Your task to perform on an android device: add a contact in the contacts app Image 0: 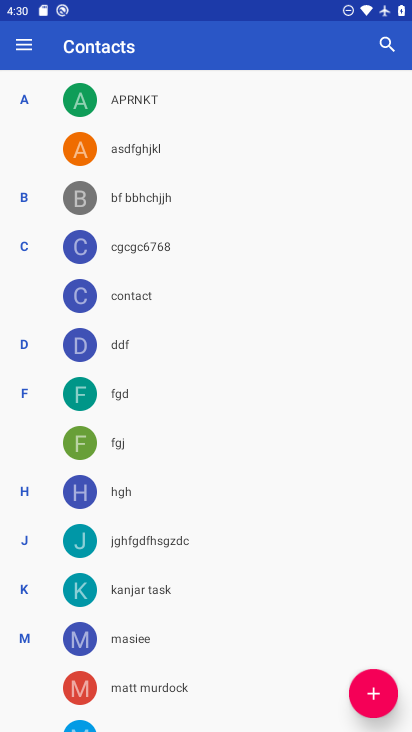
Step 0: press home button
Your task to perform on an android device: add a contact in the contacts app Image 1: 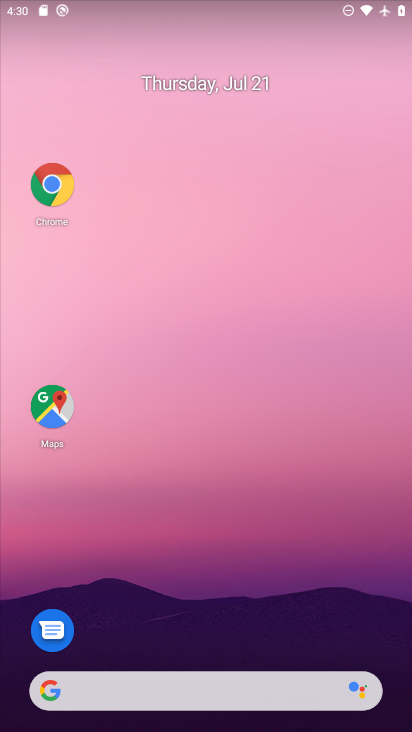
Step 1: drag from (216, 681) to (252, 4)
Your task to perform on an android device: add a contact in the contacts app Image 2: 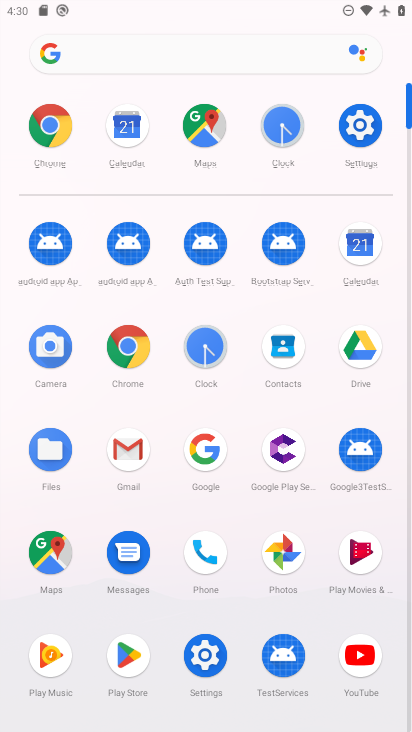
Step 2: click (207, 550)
Your task to perform on an android device: add a contact in the contacts app Image 3: 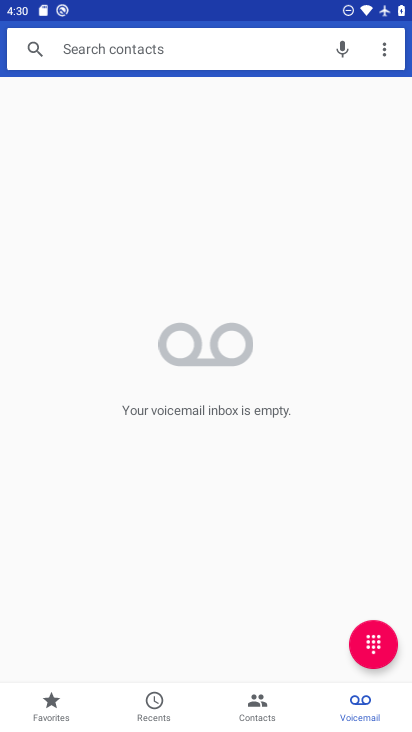
Step 3: click (266, 696)
Your task to perform on an android device: add a contact in the contacts app Image 4: 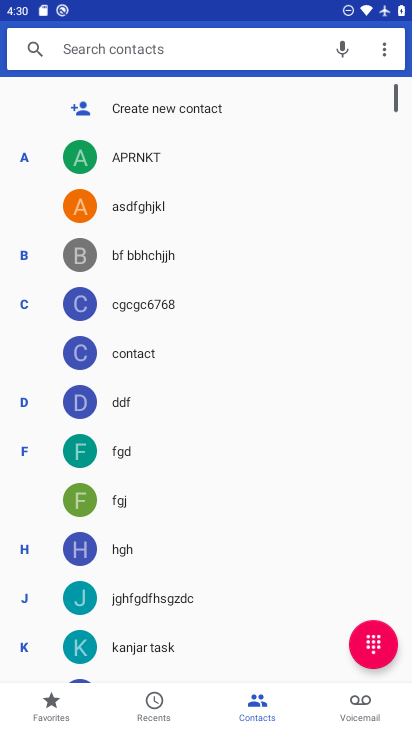
Step 4: click (129, 107)
Your task to perform on an android device: add a contact in the contacts app Image 5: 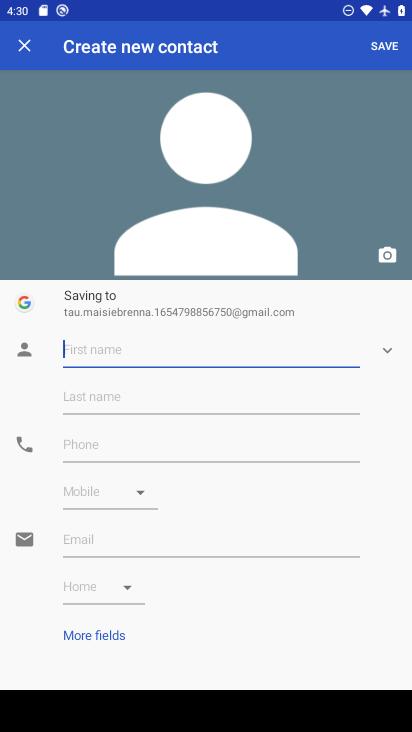
Step 5: type "jg"
Your task to perform on an android device: add a contact in the contacts app Image 6: 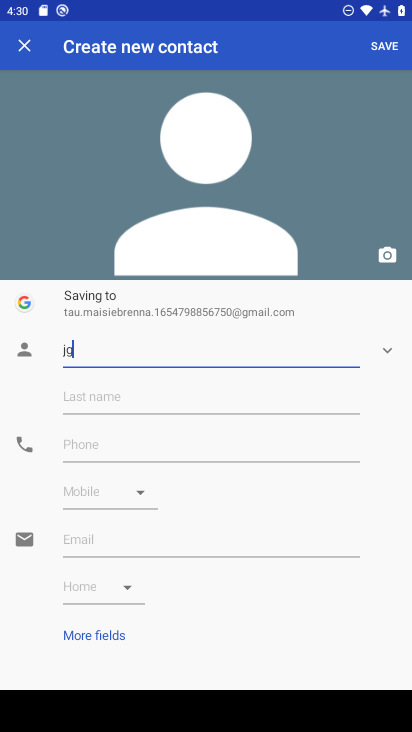
Step 6: type ""
Your task to perform on an android device: add a contact in the contacts app Image 7: 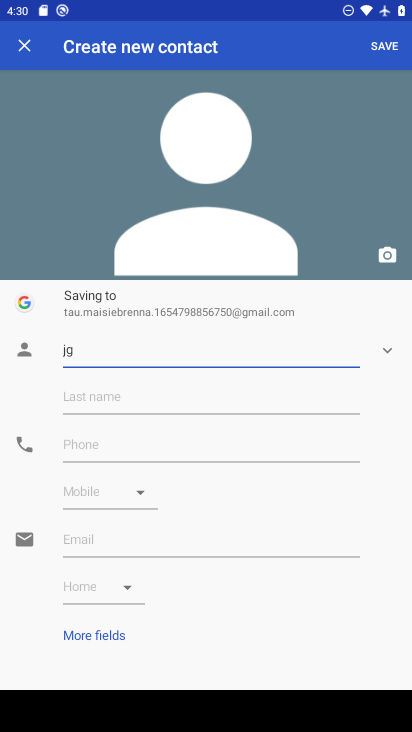
Step 7: click (213, 457)
Your task to perform on an android device: add a contact in the contacts app Image 8: 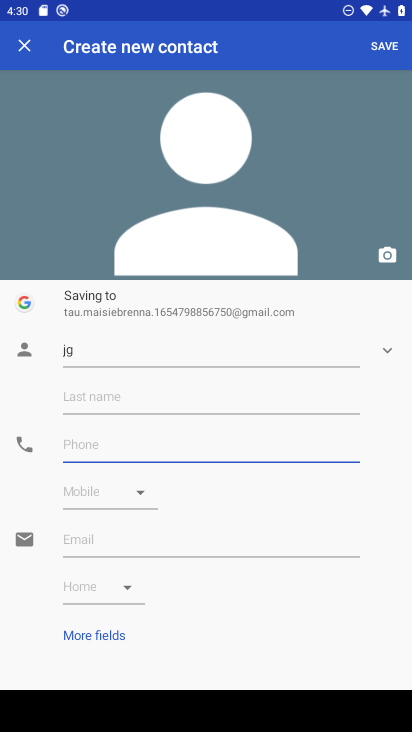
Step 8: type "87654"
Your task to perform on an android device: add a contact in the contacts app Image 9: 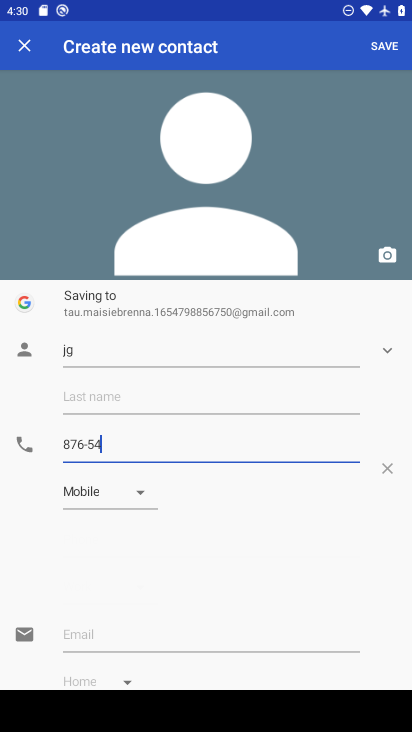
Step 9: type ""
Your task to perform on an android device: add a contact in the contacts app Image 10: 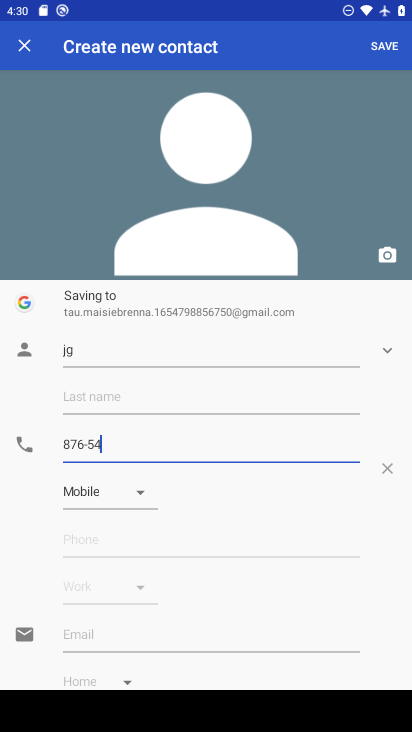
Step 10: click (376, 54)
Your task to perform on an android device: add a contact in the contacts app Image 11: 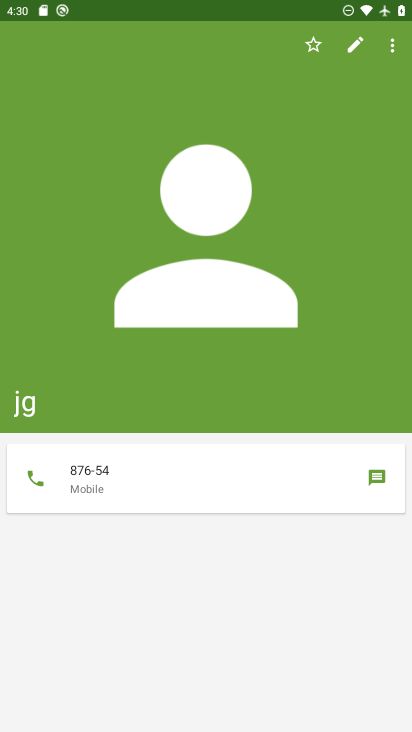
Step 11: task complete